Your task to perform on an android device: Go to sound settings Image 0: 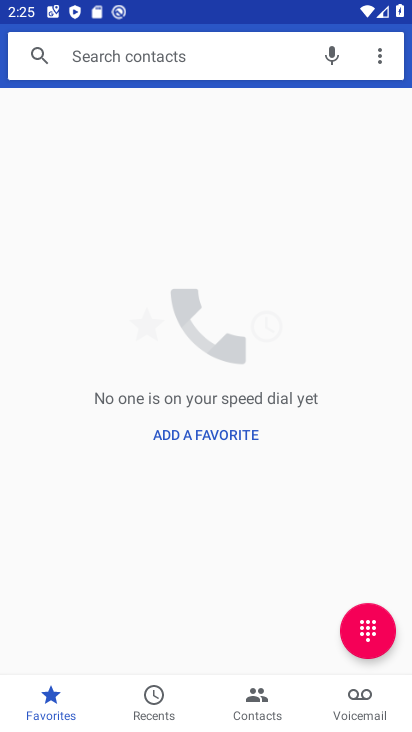
Step 0: press home button
Your task to perform on an android device: Go to sound settings Image 1: 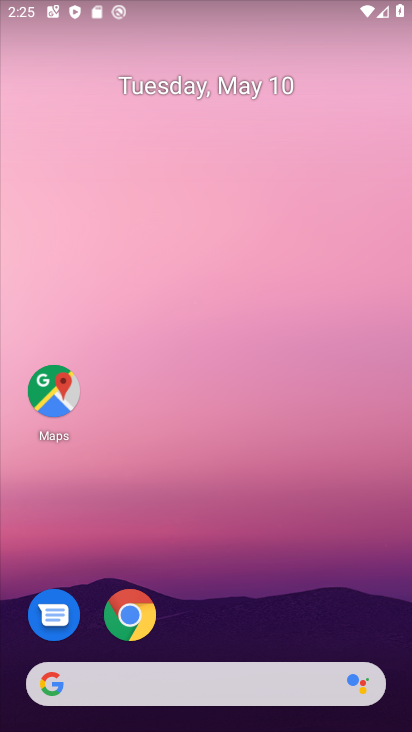
Step 1: drag from (202, 633) to (288, 107)
Your task to perform on an android device: Go to sound settings Image 2: 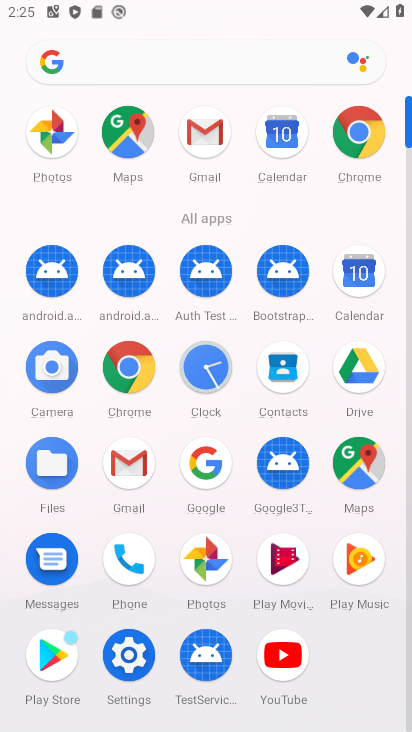
Step 2: click (116, 661)
Your task to perform on an android device: Go to sound settings Image 3: 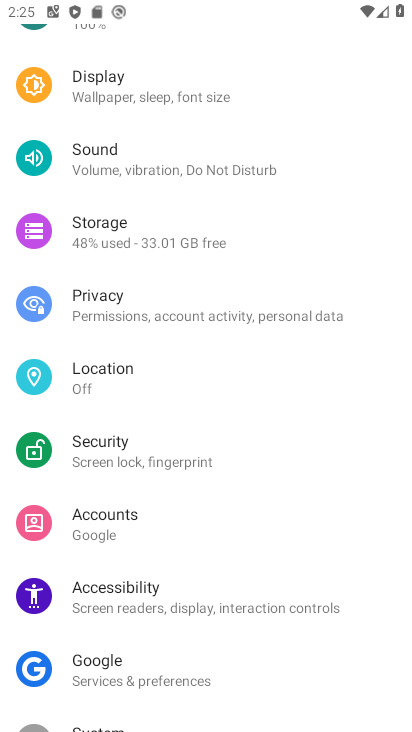
Step 3: click (99, 154)
Your task to perform on an android device: Go to sound settings Image 4: 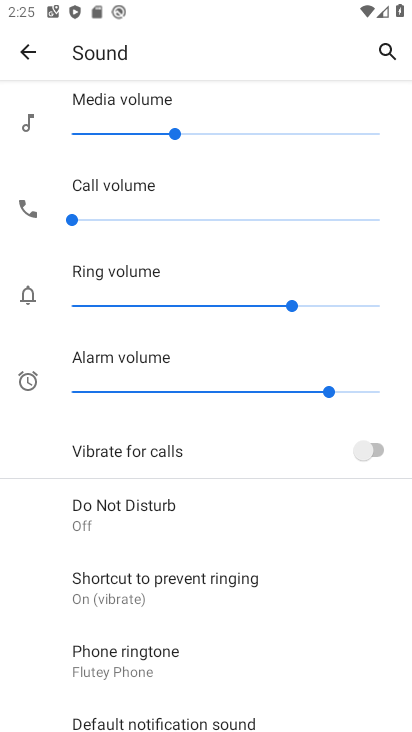
Step 4: task complete